Your task to perform on an android device: search for starred emails in the gmail app Image 0: 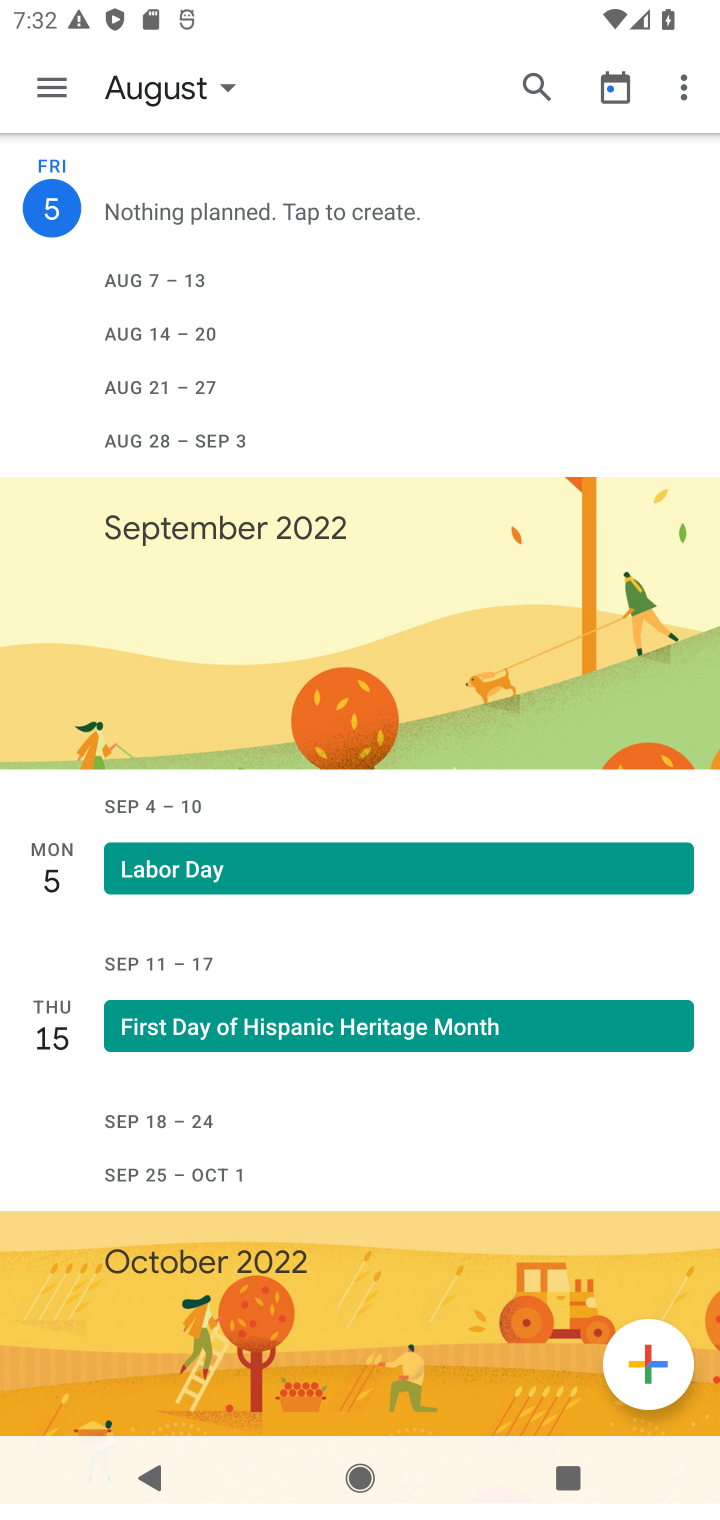
Step 0: press home button
Your task to perform on an android device: search for starred emails in the gmail app Image 1: 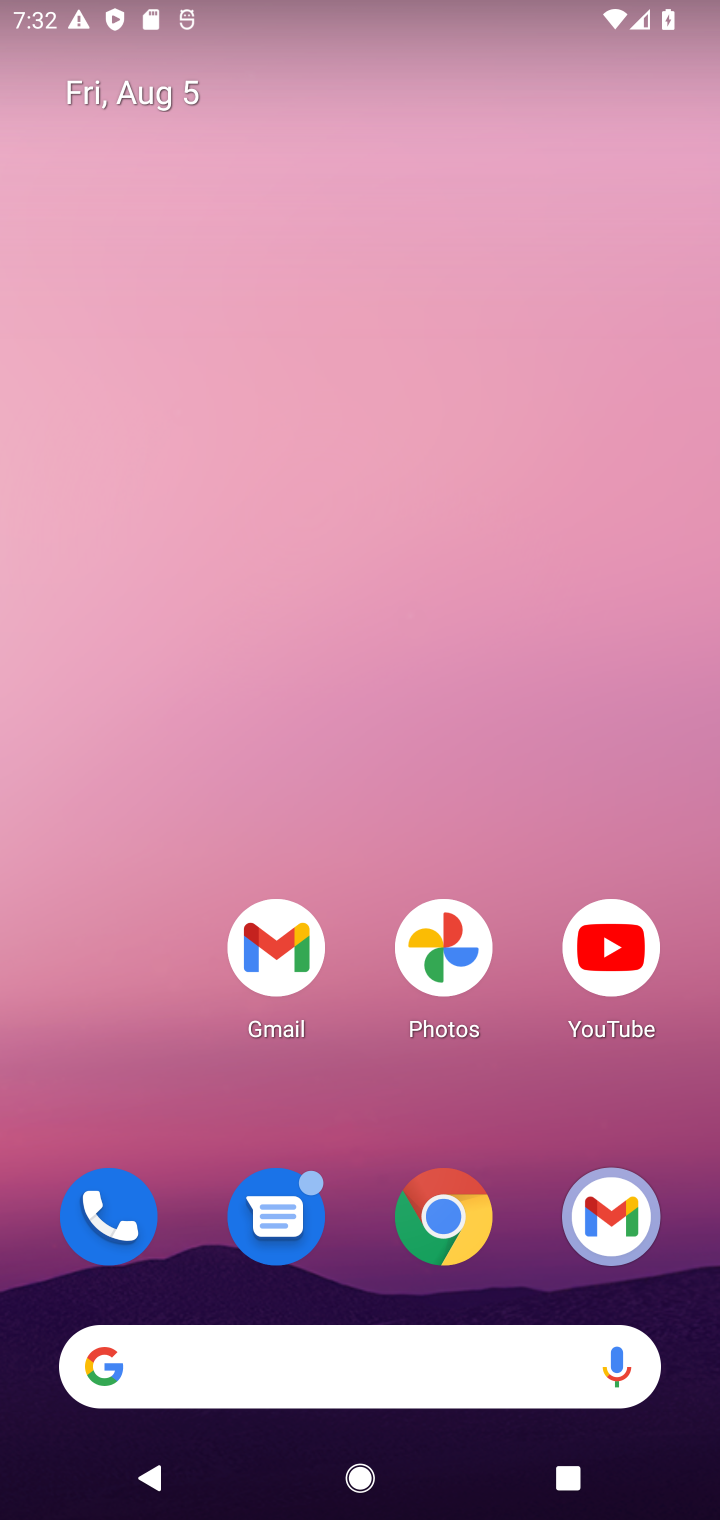
Step 1: click (271, 938)
Your task to perform on an android device: search for starred emails in the gmail app Image 2: 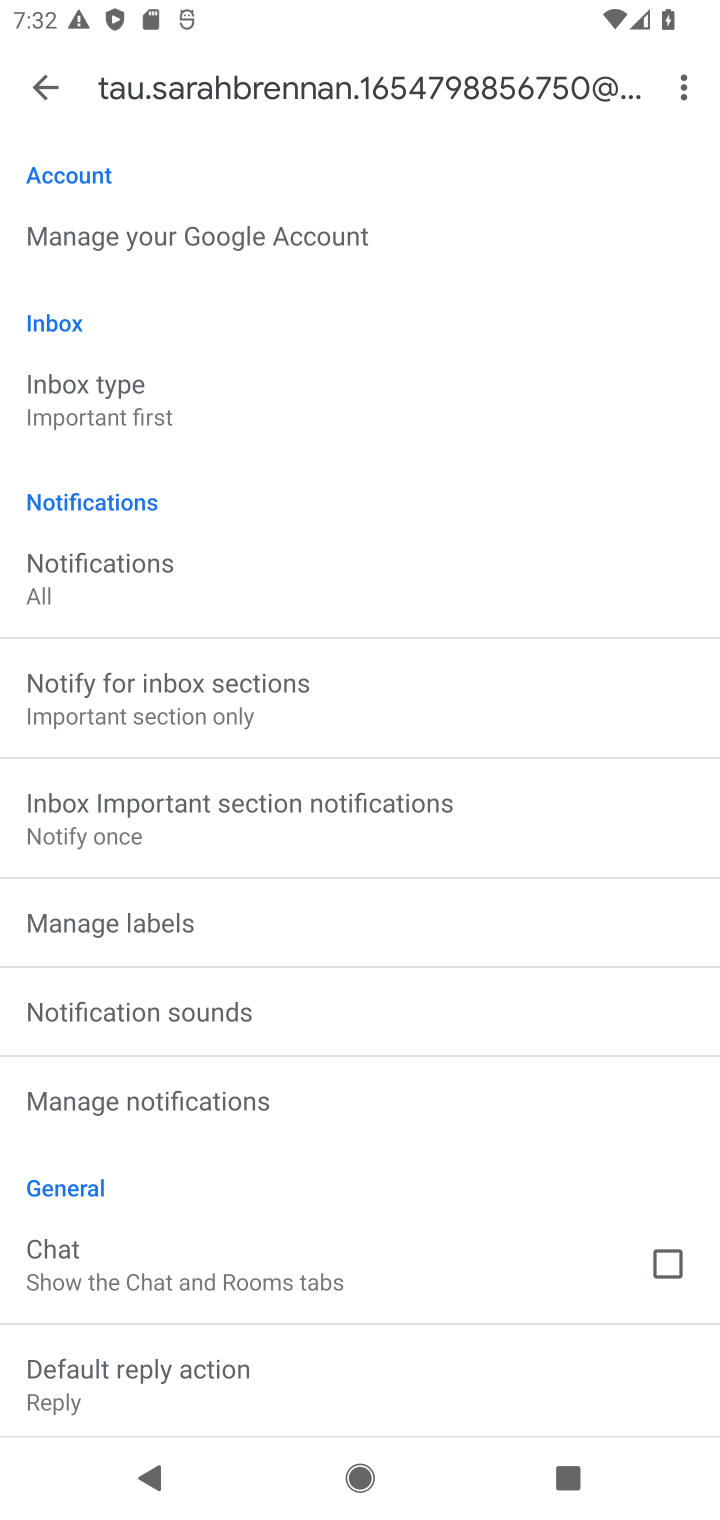
Step 2: click (44, 91)
Your task to perform on an android device: search for starred emails in the gmail app Image 3: 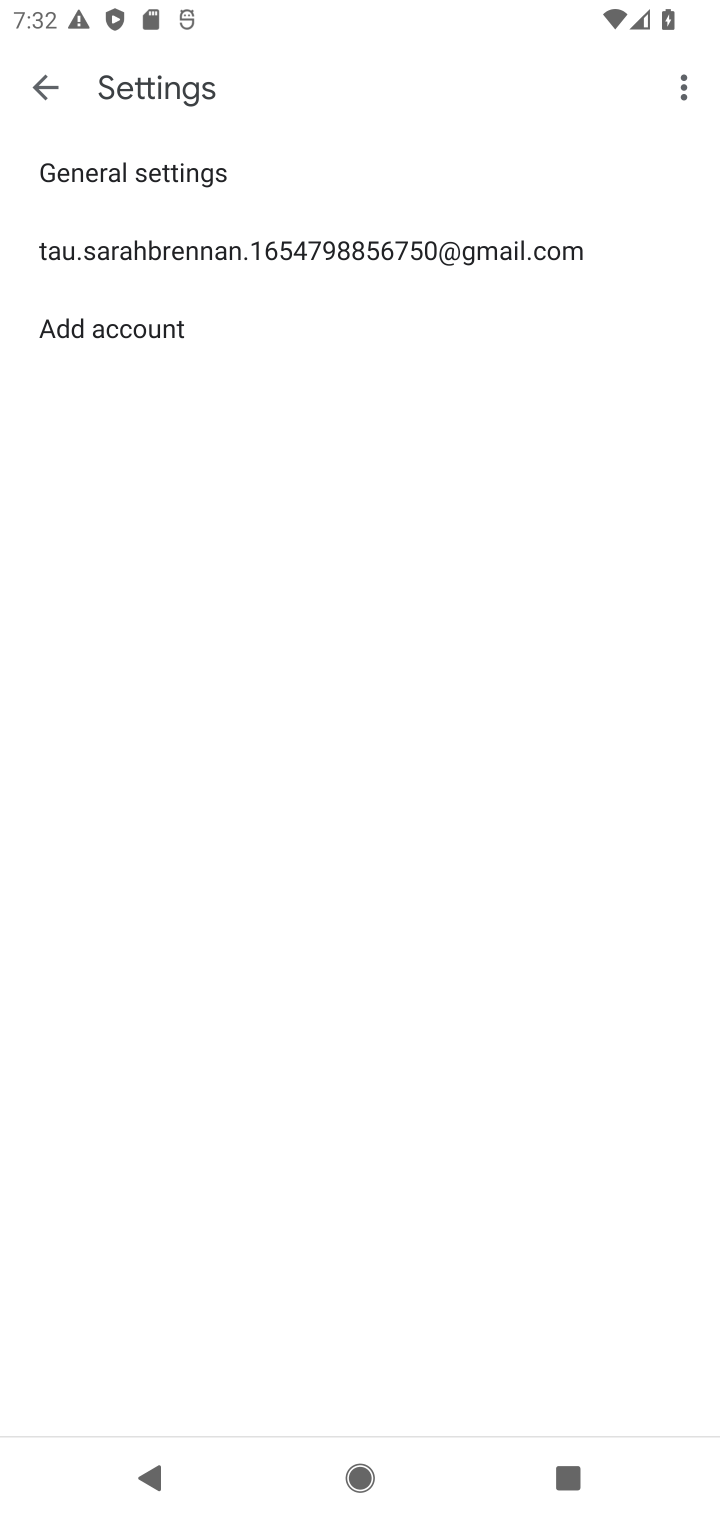
Step 3: click (55, 89)
Your task to perform on an android device: search for starred emails in the gmail app Image 4: 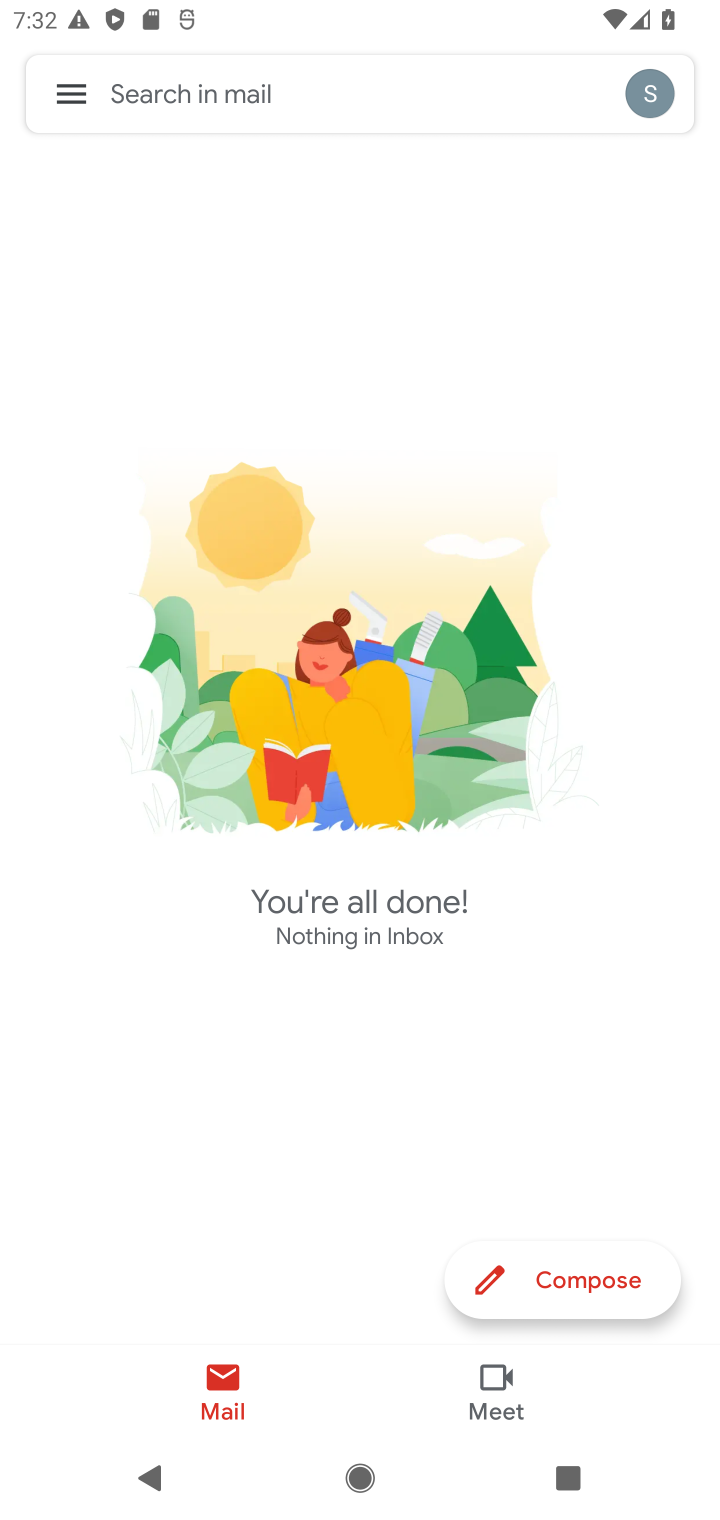
Step 4: click (80, 83)
Your task to perform on an android device: search for starred emails in the gmail app Image 5: 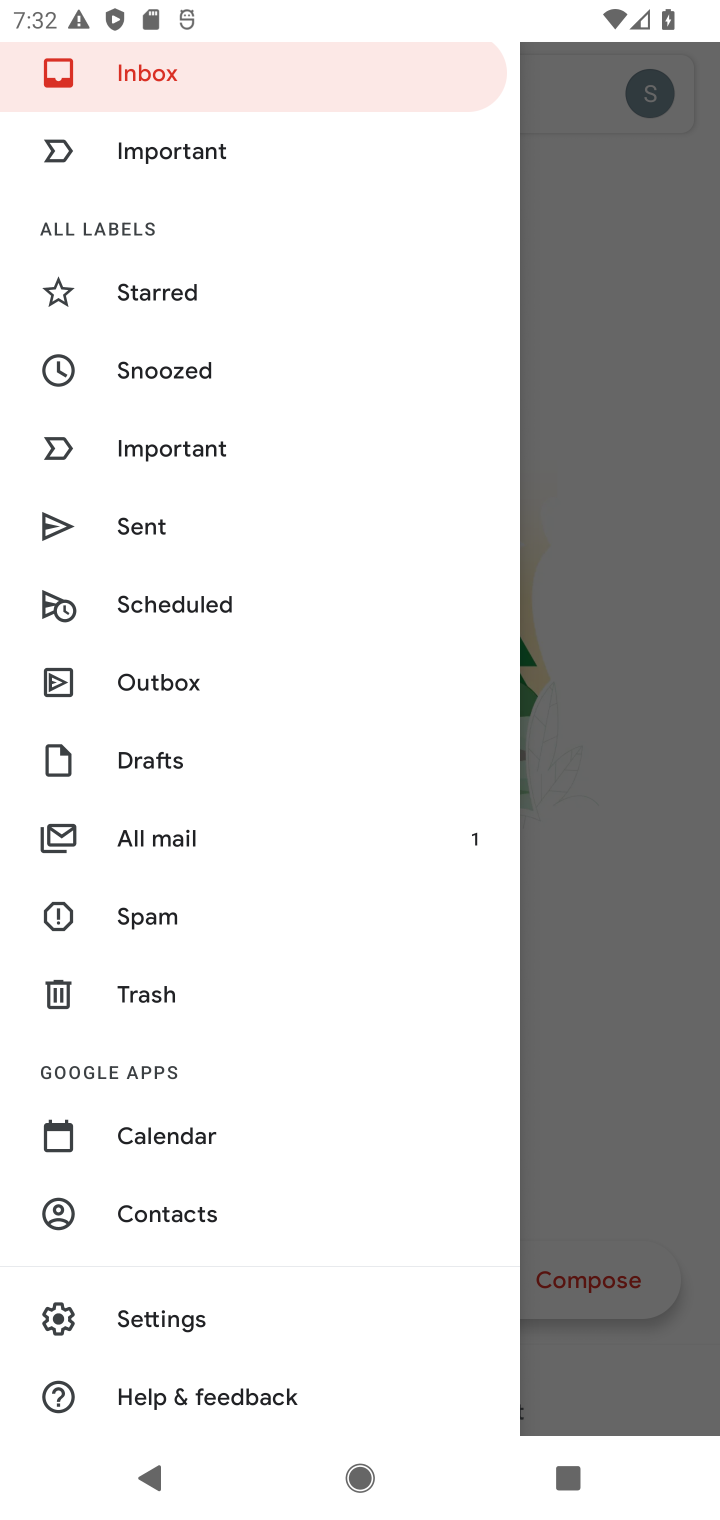
Step 5: click (137, 307)
Your task to perform on an android device: search for starred emails in the gmail app Image 6: 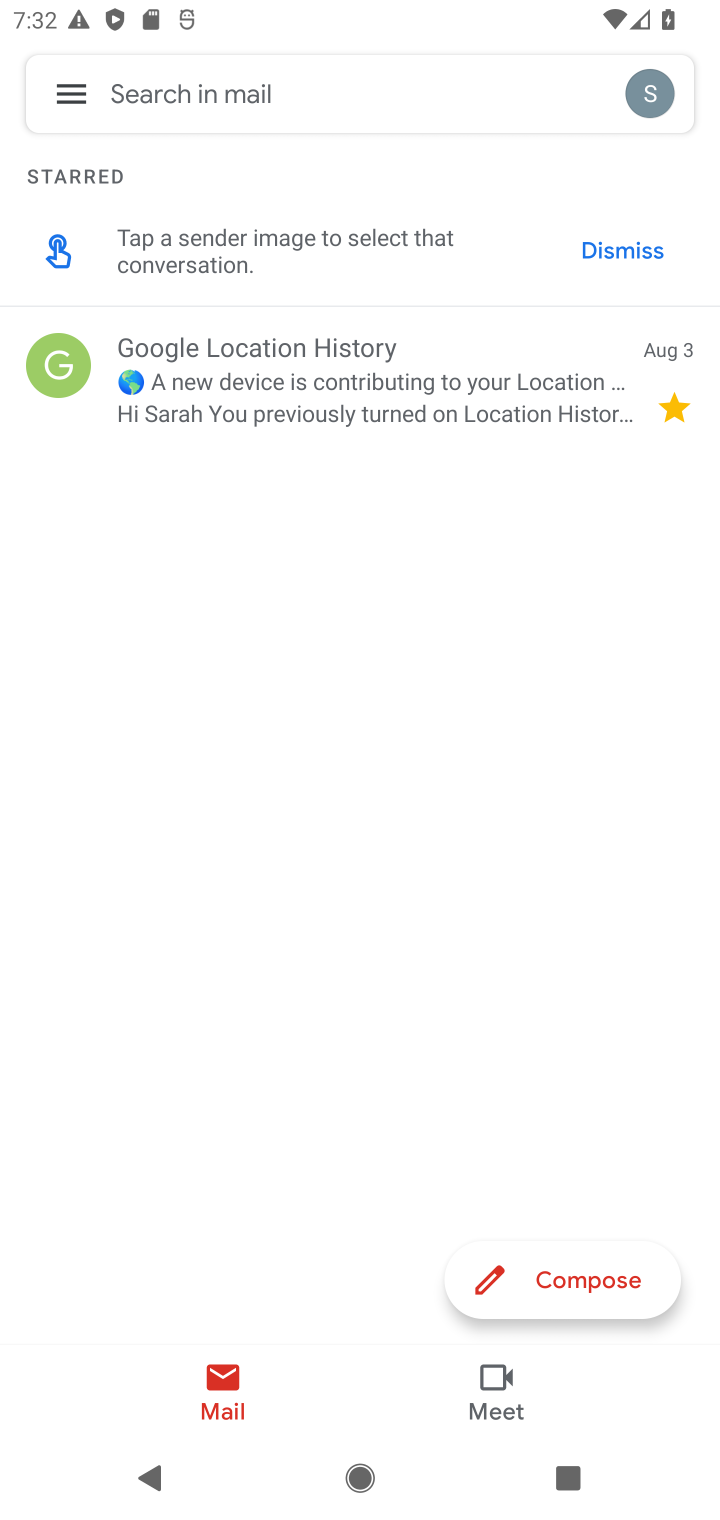
Step 6: task complete